Your task to perform on an android device: What's on my calendar today? Image 0: 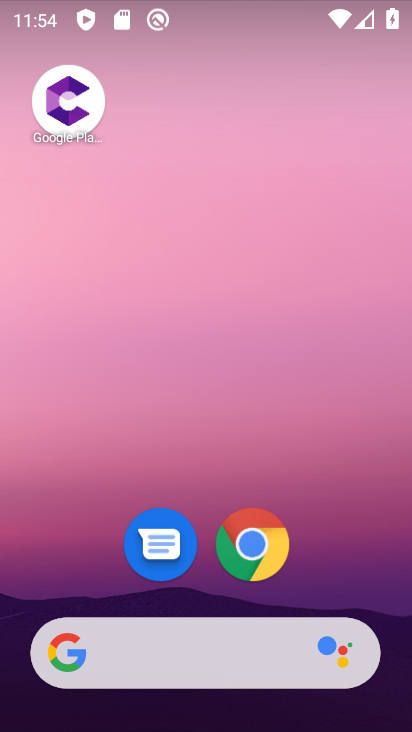
Step 0: drag from (341, 565) to (320, 192)
Your task to perform on an android device: What's on my calendar today? Image 1: 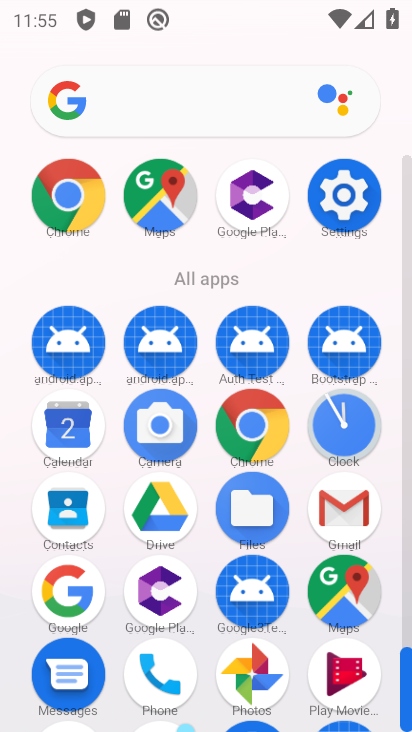
Step 1: click (78, 425)
Your task to perform on an android device: What's on my calendar today? Image 2: 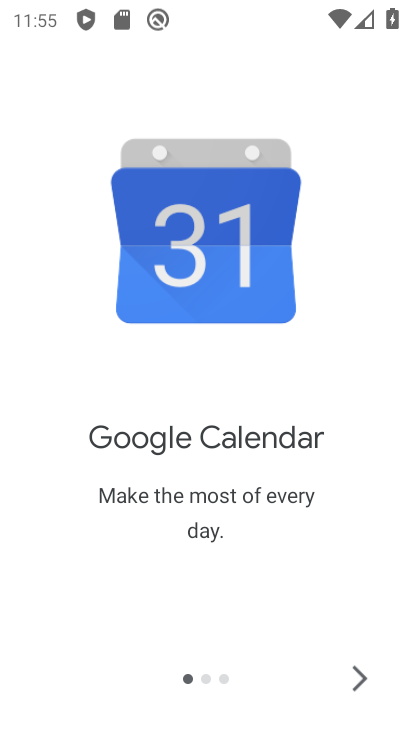
Step 2: click (362, 668)
Your task to perform on an android device: What's on my calendar today? Image 3: 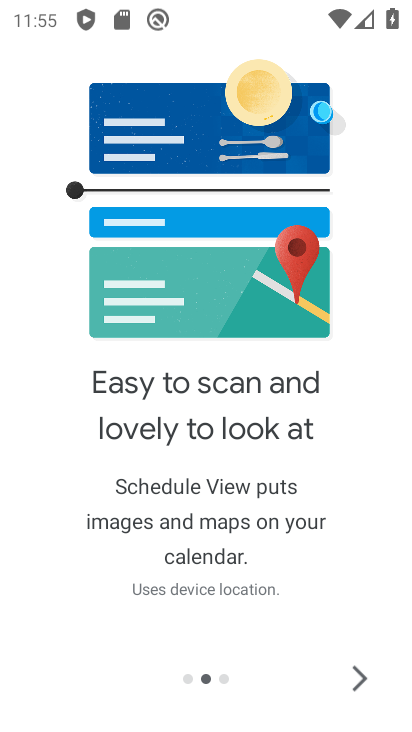
Step 3: click (361, 676)
Your task to perform on an android device: What's on my calendar today? Image 4: 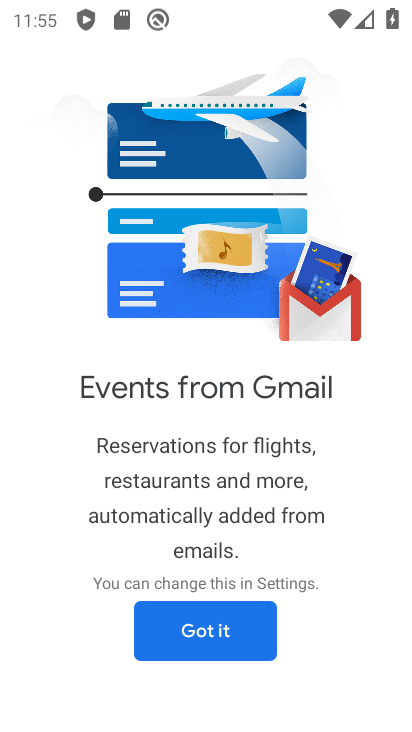
Step 4: click (255, 637)
Your task to perform on an android device: What's on my calendar today? Image 5: 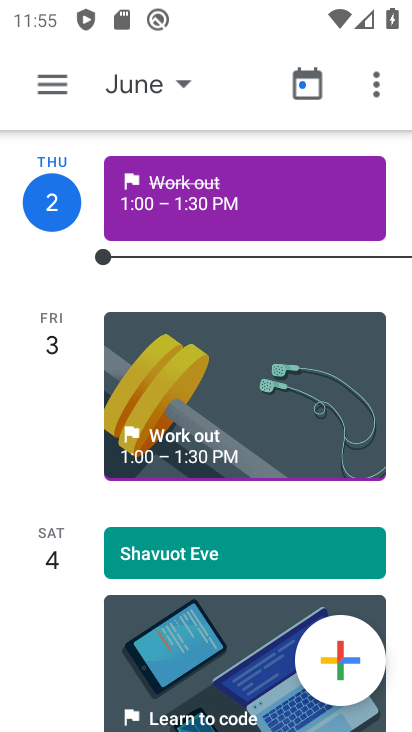
Step 5: click (165, 96)
Your task to perform on an android device: What's on my calendar today? Image 6: 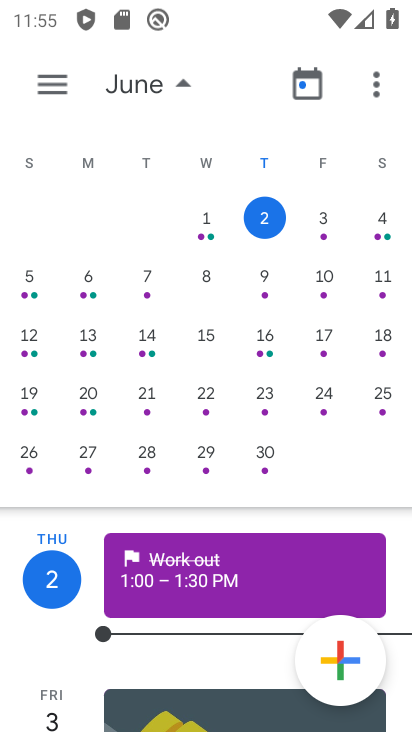
Step 6: click (318, 222)
Your task to perform on an android device: What's on my calendar today? Image 7: 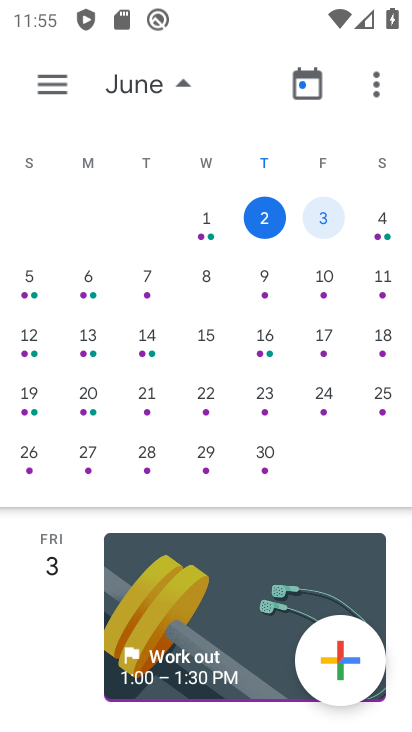
Step 7: task complete